Your task to perform on an android device: turn on airplane mode Image 0: 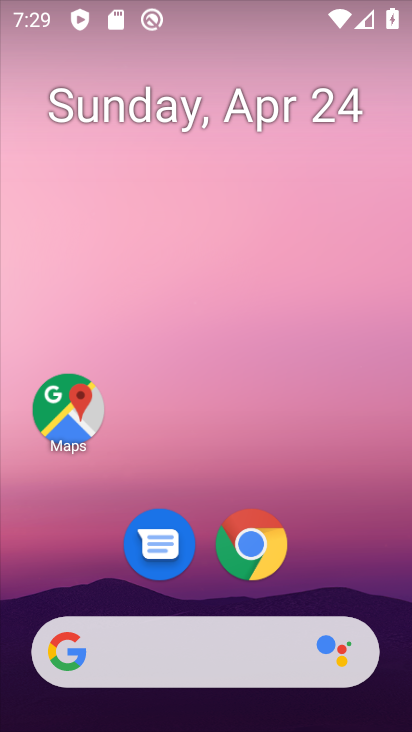
Step 0: drag from (211, 649) to (384, 74)
Your task to perform on an android device: turn on airplane mode Image 1: 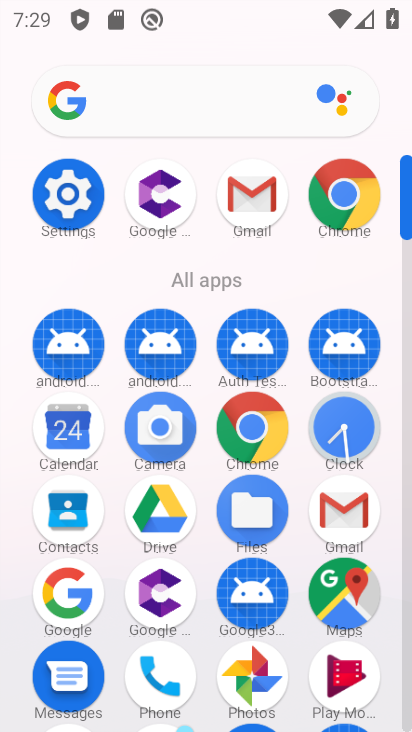
Step 1: click (63, 210)
Your task to perform on an android device: turn on airplane mode Image 2: 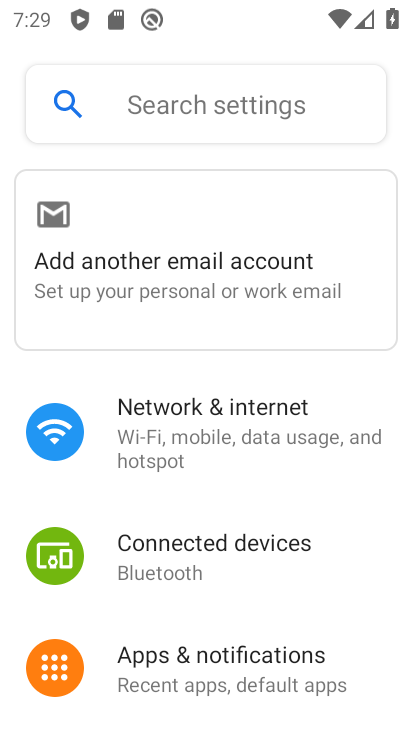
Step 2: click (224, 416)
Your task to perform on an android device: turn on airplane mode Image 3: 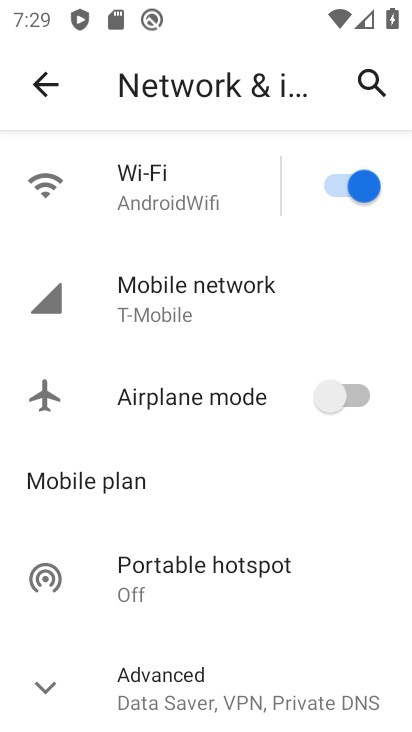
Step 3: click (356, 392)
Your task to perform on an android device: turn on airplane mode Image 4: 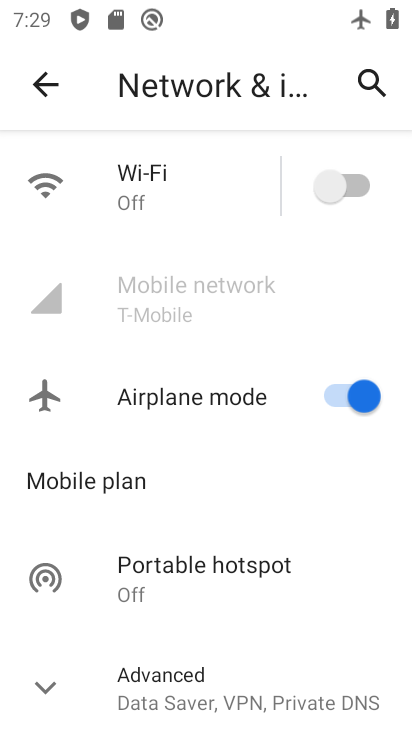
Step 4: task complete